Your task to perform on an android device: Open Chrome and go to settings Image 0: 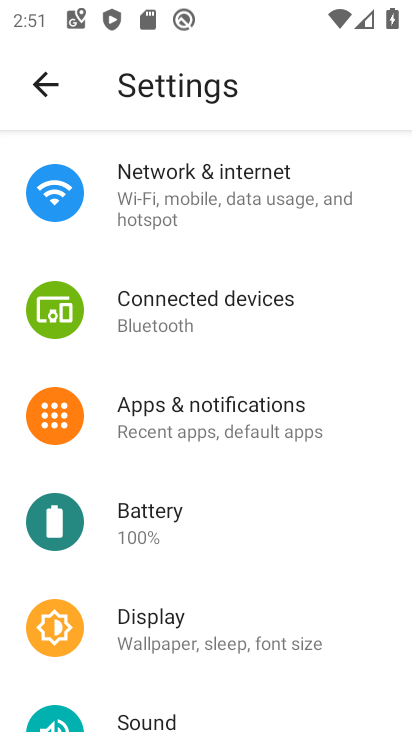
Step 0: press home button
Your task to perform on an android device: Open Chrome and go to settings Image 1: 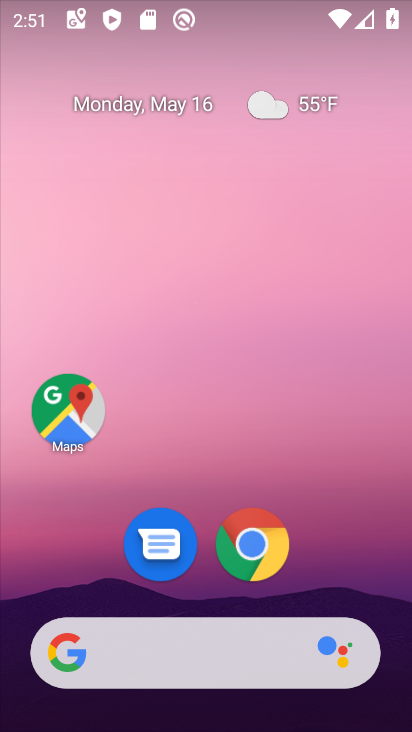
Step 1: drag from (357, 538) to (265, 136)
Your task to perform on an android device: Open Chrome and go to settings Image 2: 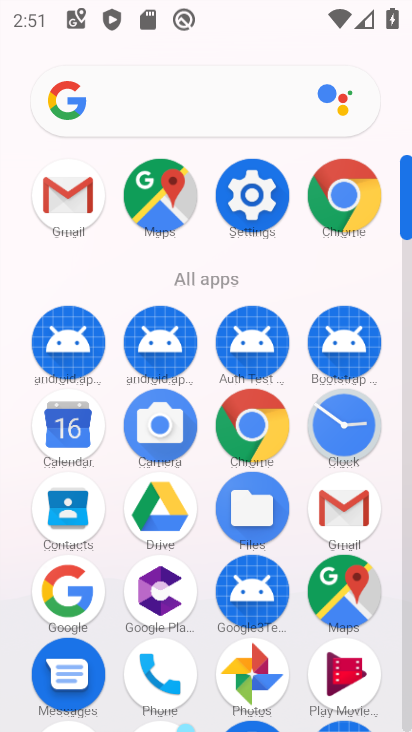
Step 2: click (345, 225)
Your task to perform on an android device: Open Chrome and go to settings Image 3: 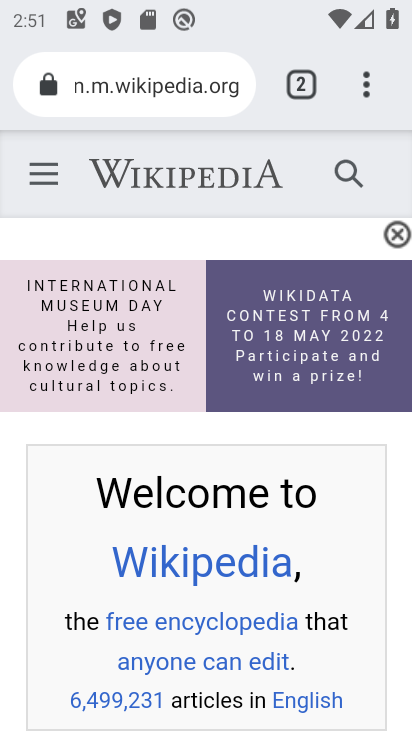
Step 3: task complete